Your task to perform on an android device: What's on my calendar tomorrow? Image 0: 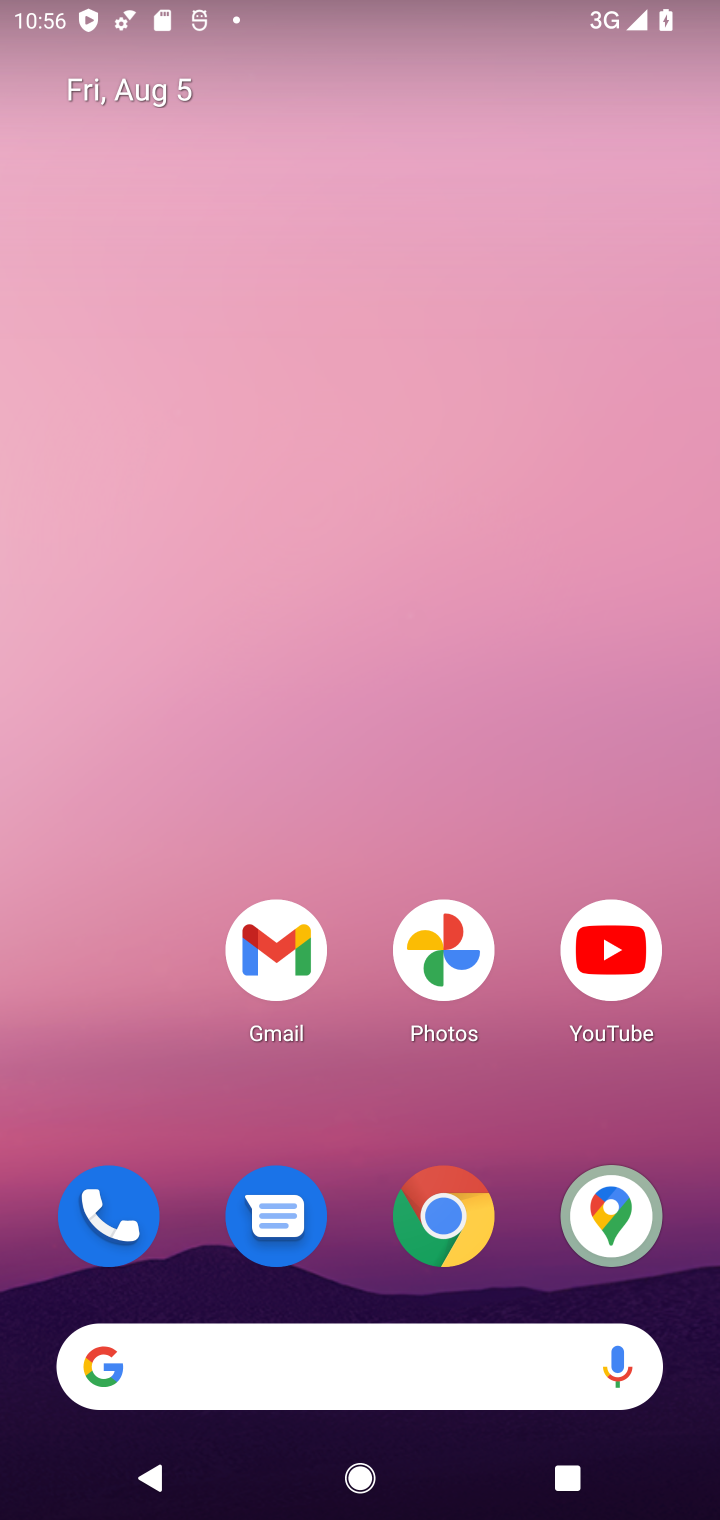
Step 0: drag from (512, 1348) to (411, 11)
Your task to perform on an android device: What's on my calendar tomorrow? Image 1: 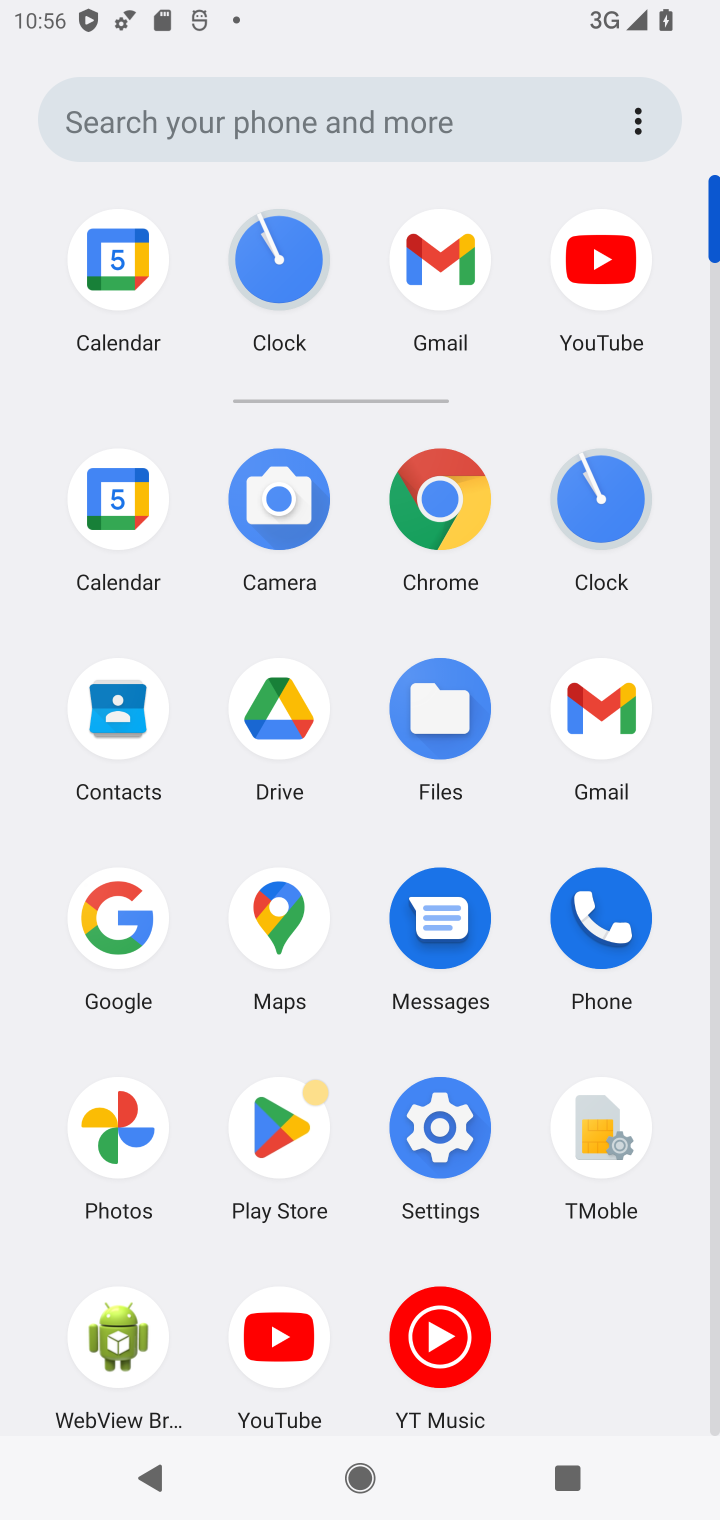
Step 1: click (129, 502)
Your task to perform on an android device: What's on my calendar tomorrow? Image 2: 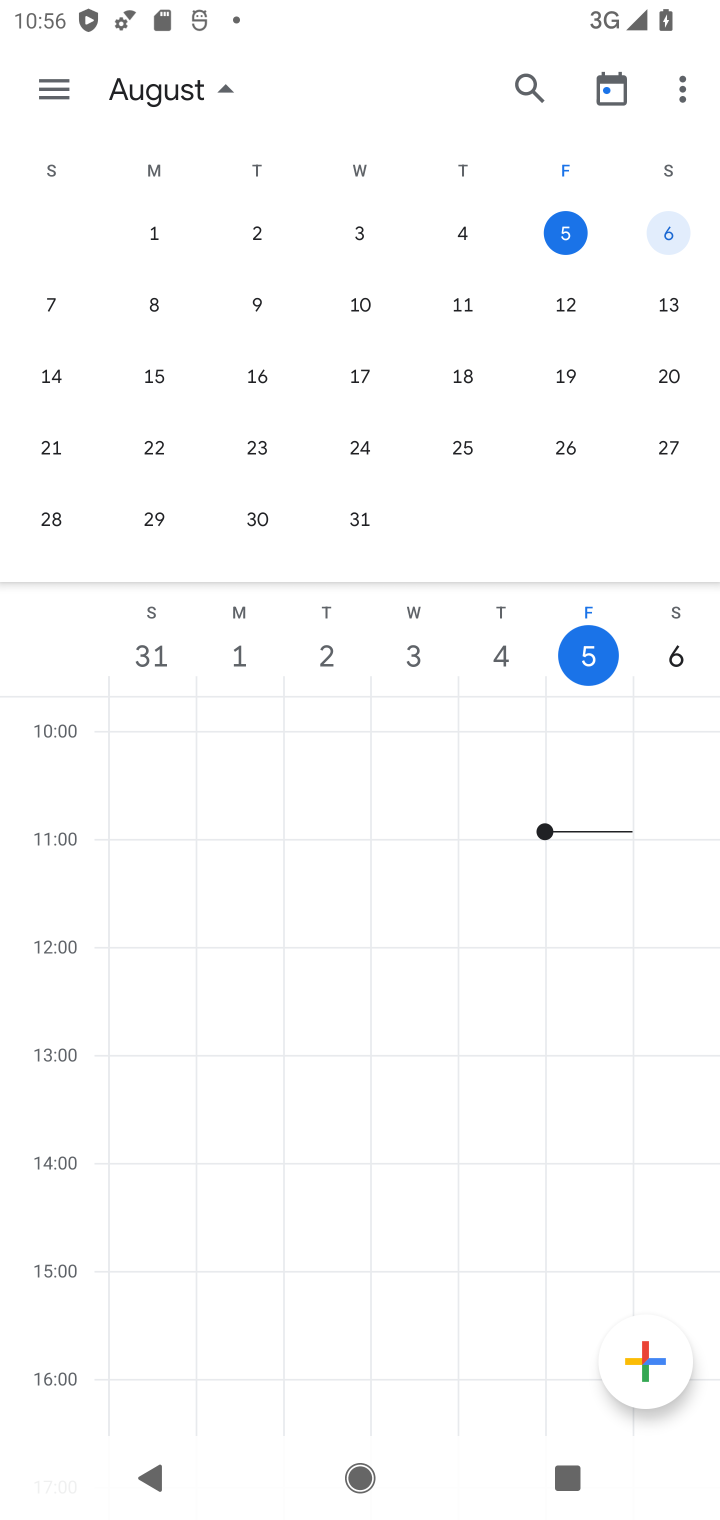
Step 2: click (674, 242)
Your task to perform on an android device: What's on my calendar tomorrow? Image 3: 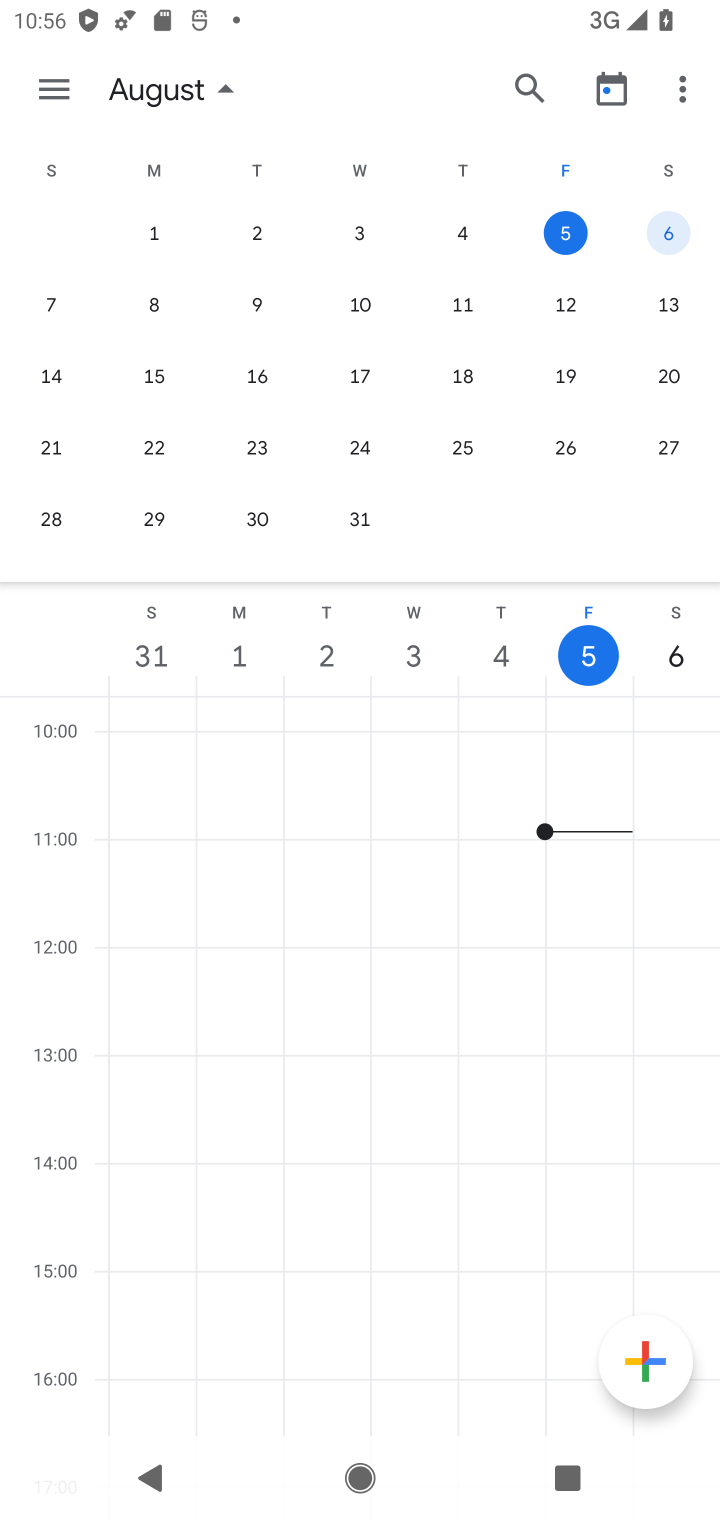
Step 3: task complete